Your task to perform on an android device: Search for vegetarian restaurants on Maps Image 0: 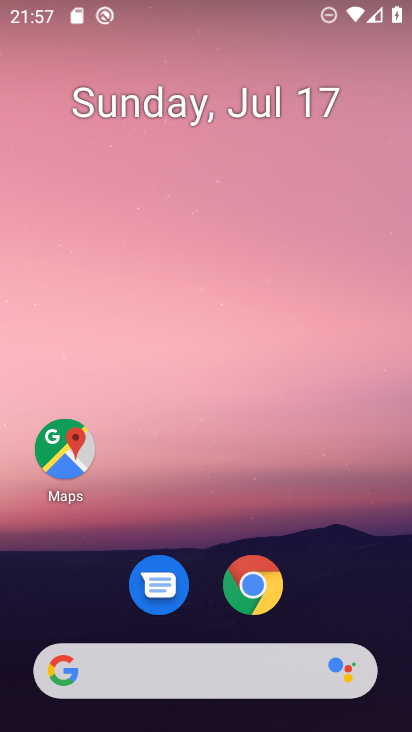
Step 0: click (61, 455)
Your task to perform on an android device: Search for vegetarian restaurants on Maps Image 1: 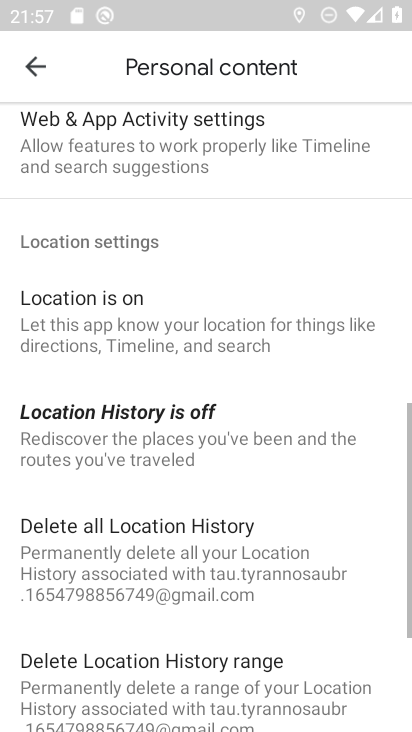
Step 1: click (35, 68)
Your task to perform on an android device: Search for vegetarian restaurants on Maps Image 2: 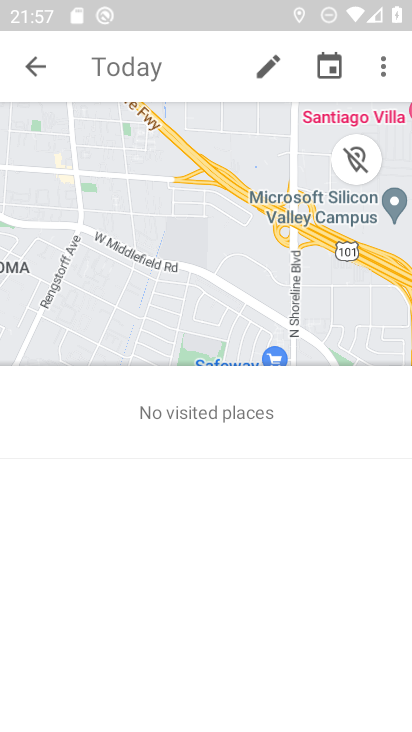
Step 2: click (35, 67)
Your task to perform on an android device: Search for vegetarian restaurants on Maps Image 3: 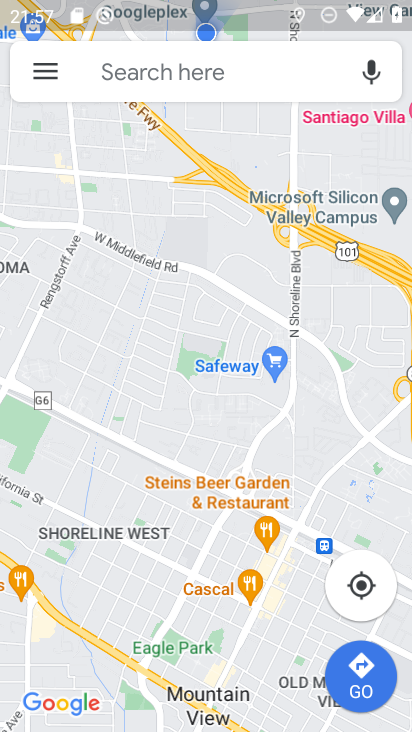
Step 3: click (185, 69)
Your task to perform on an android device: Search for vegetarian restaurants on Maps Image 4: 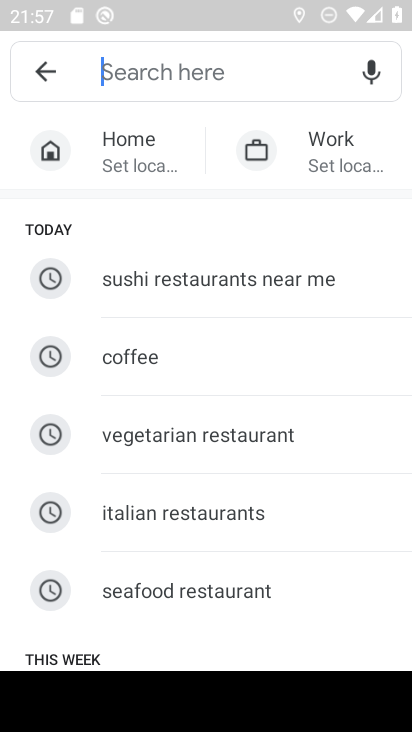
Step 4: click (207, 442)
Your task to perform on an android device: Search for vegetarian restaurants on Maps Image 5: 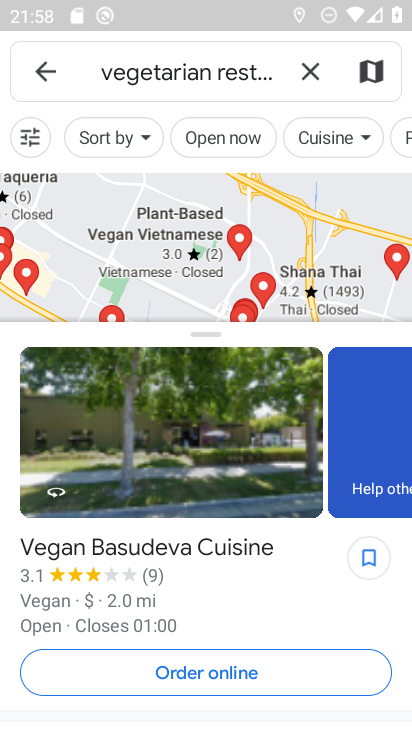
Step 5: task complete